Your task to perform on an android device: Show me the alarms in the clock app Image 0: 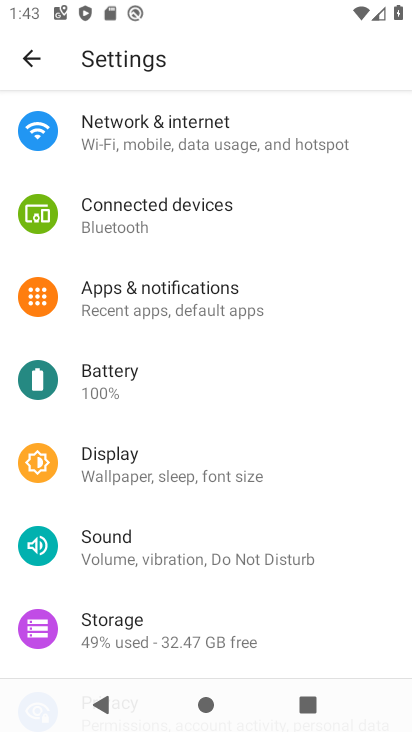
Step 0: press home button
Your task to perform on an android device: Show me the alarms in the clock app Image 1: 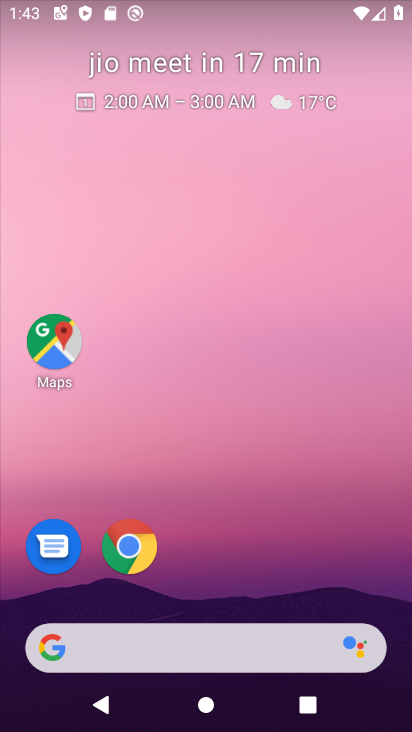
Step 1: drag from (276, 554) to (301, 65)
Your task to perform on an android device: Show me the alarms in the clock app Image 2: 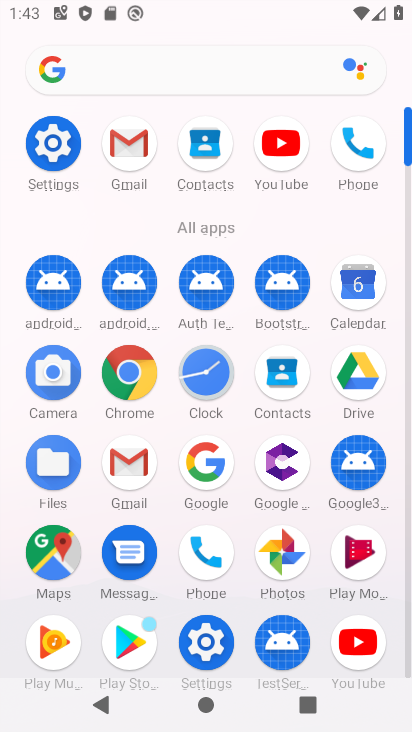
Step 2: click (337, 153)
Your task to perform on an android device: Show me the alarms in the clock app Image 3: 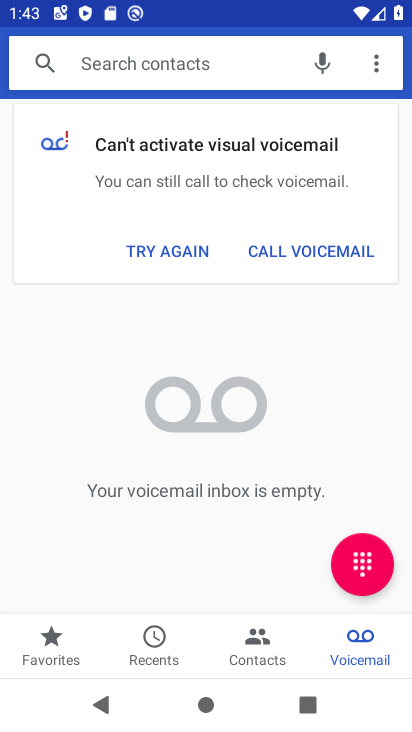
Step 3: click (382, 57)
Your task to perform on an android device: Show me the alarms in the clock app Image 4: 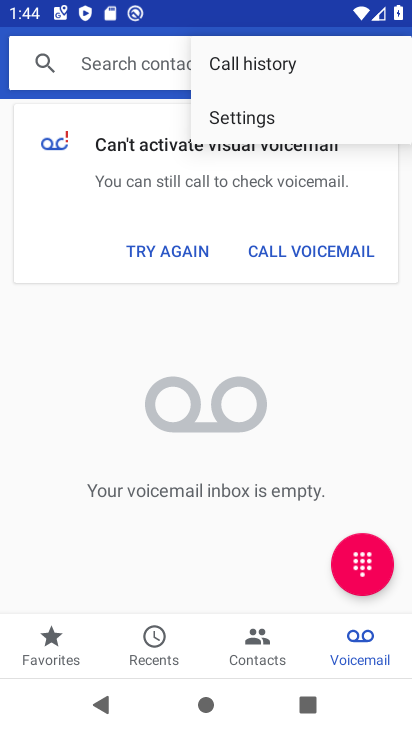
Step 4: press home button
Your task to perform on an android device: Show me the alarms in the clock app Image 5: 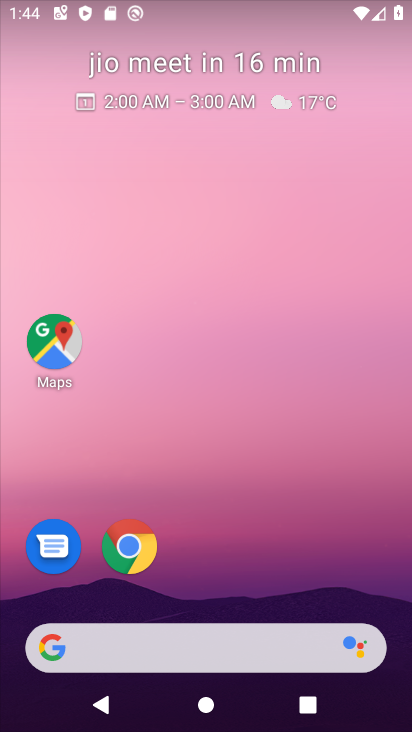
Step 5: drag from (246, 580) to (261, 117)
Your task to perform on an android device: Show me the alarms in the clock app Image 6: 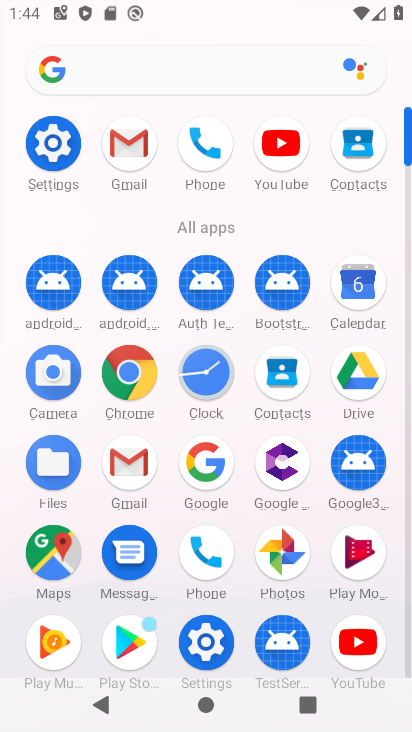
Step 6: click (206, 395)
Your task to perform on an android device: Show me the alarms in the clock app Image 7: 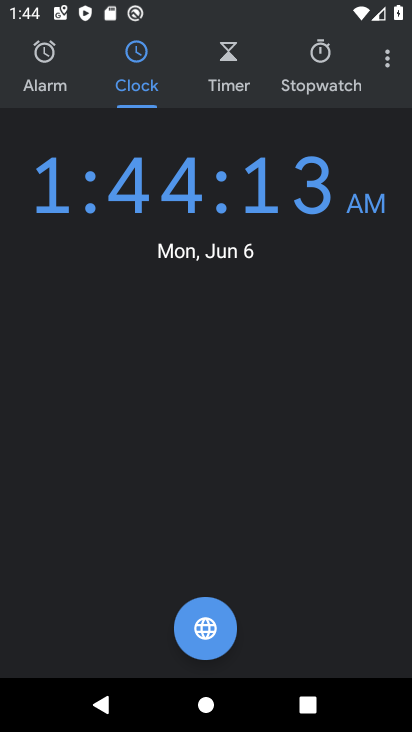
Step 7: click (371, 63)
Your task to perform on an android device: Show me the alarms in the clock app Image 8: 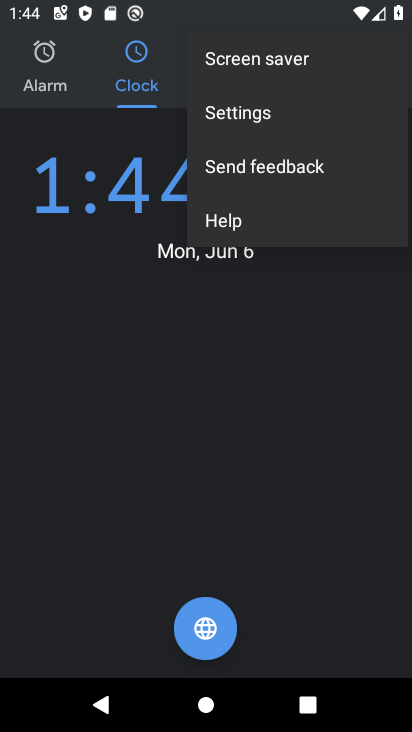
Step 8: click (295, 122)
Your task to perform on an android device: Show me the alarms in the clock app Image 9: 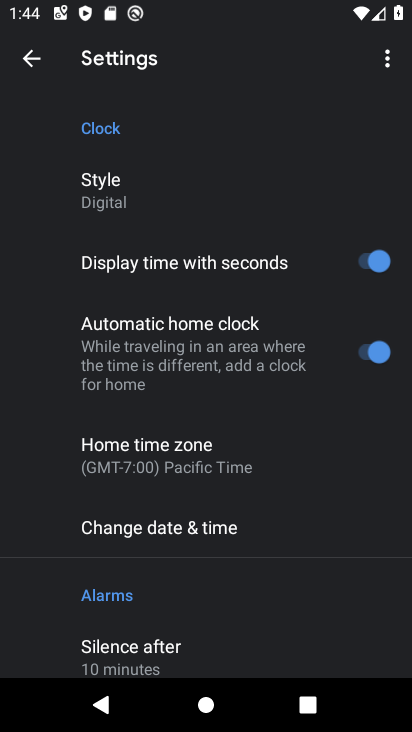
Step 9: click (49, 64)
Your task to perform on an android device: Show me the alarms in the clock app Image 10: 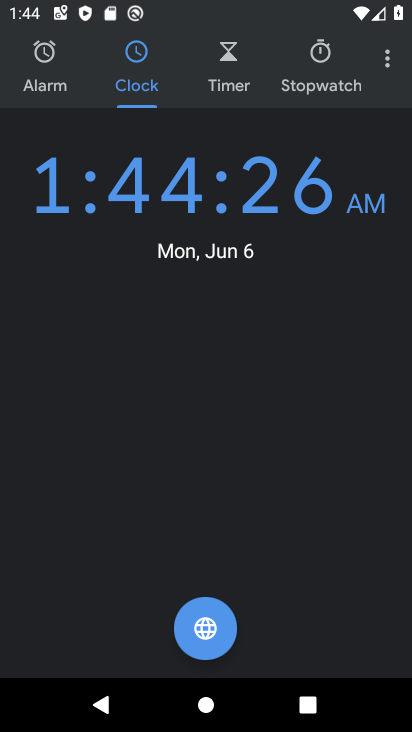
Step 10: click (49, 64)
Your task to perform on an android device: Show me the alarms in the clock app Image 11: 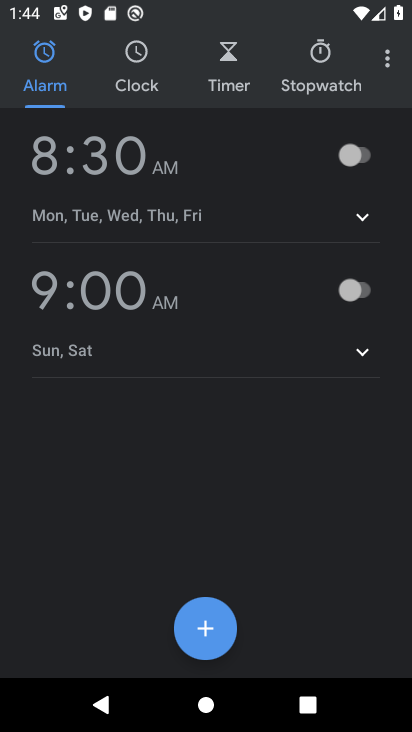
Step 11: task complete